Your task to perform on an android device: Check the settings for the Lyft app Image 0: 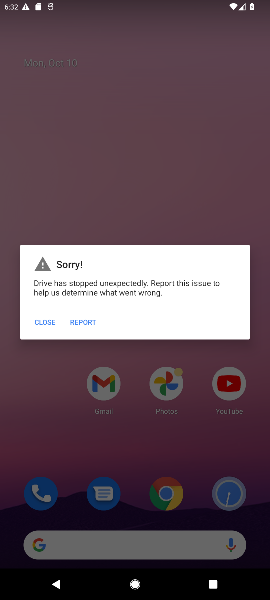
Step 0: click (47, 322)
Your task to perform on an android device: Check the settings for the Lyft app Image 1: 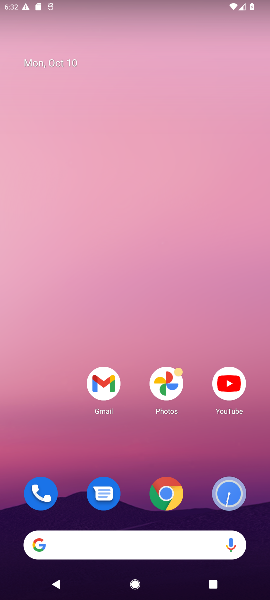
Step 1: drag from (138, 491) to (134, 54)
Your task to perform on an android device: Check the settings for the Lyft app Image 2: 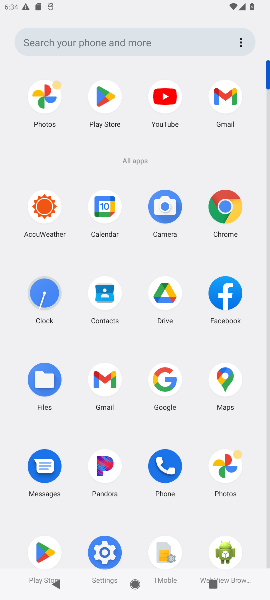
Step 2: click (104, 96)
Your task to perform on an android device: Check the settings for the Lyft app Image 3: 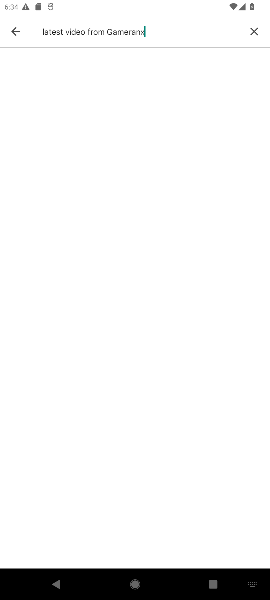
Step 3: click (14, 33)
Your task to perform on an android device: Check the settings for the Lyft app Image 4: 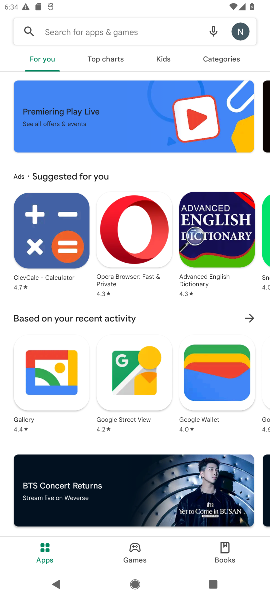
Step 4: click (116, 29)
Your task to perform on an android device: Check the settings for the Lyft app Image 5: 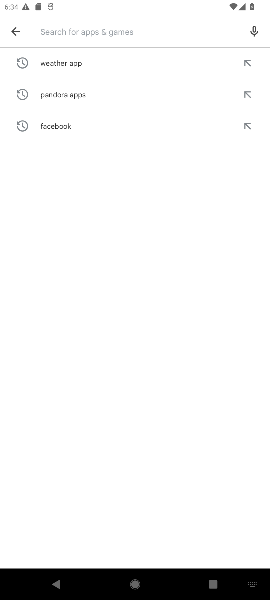
Step 5: type "Lyft app"
Your task to perform on an android device: Check the settings for the Lyft app Image 6: 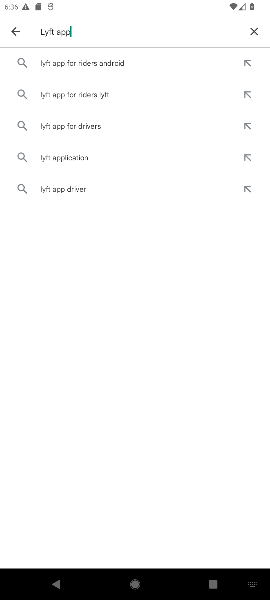
Step 6: click (79, 64)
Your task to perform on an android device: Check the settings for the Lyft app Image 7: 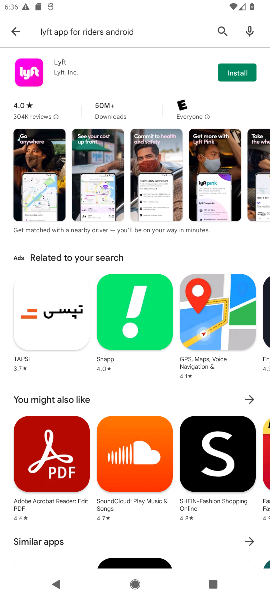
Step 7: click (230, 69)
Your task to perform on an android device: Check the settings for the Lyft app Image 8: 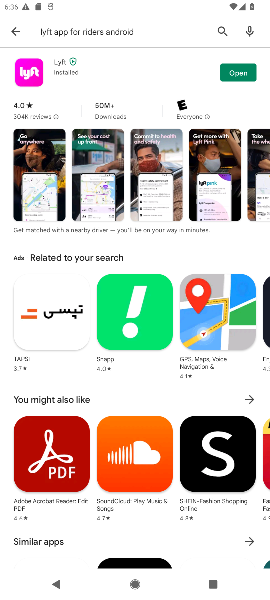
Step 8: click (233, 75)
Your task to perform on an android device: Check the settings for the Lyft app Image 9: 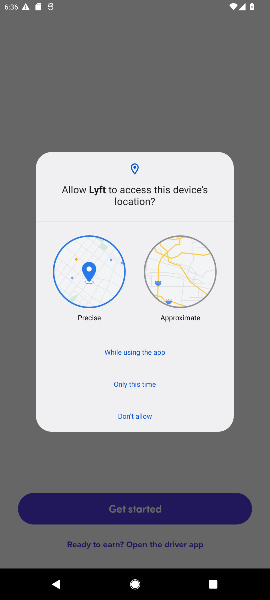
Step 9: task complete